Your task to perform on an android device: Open calendar and show me the third week of next month Image 0: 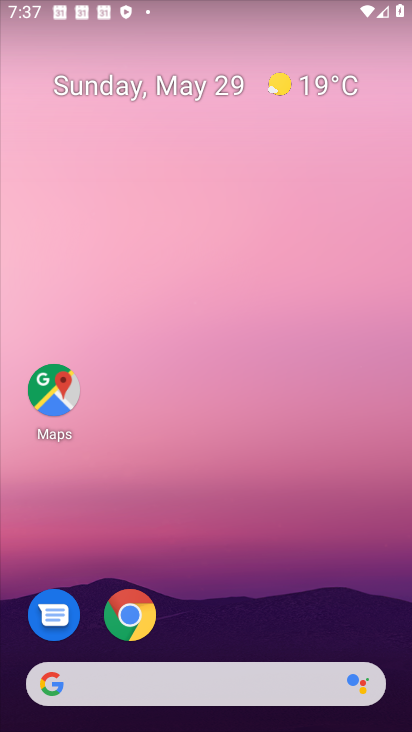
Step 0: drag from (139, 719) to (144, 44)
Your task to perform on an android device: Open calendar and show me the third week of next month Image 1: 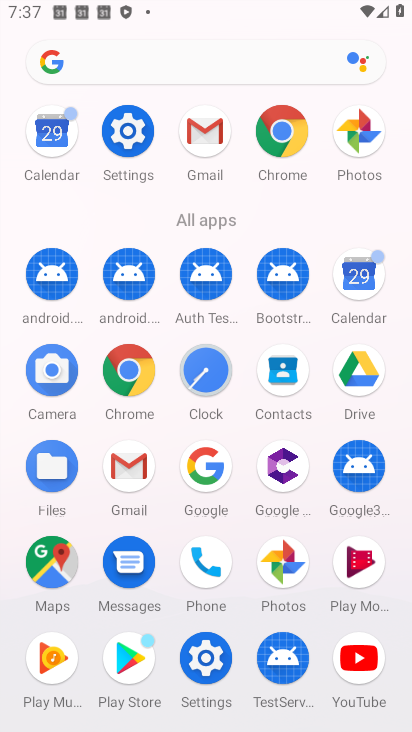
Step 1: click (47, 138)
Your task to perform on an android device: Open calendar and show me the third week of next month Image 2: 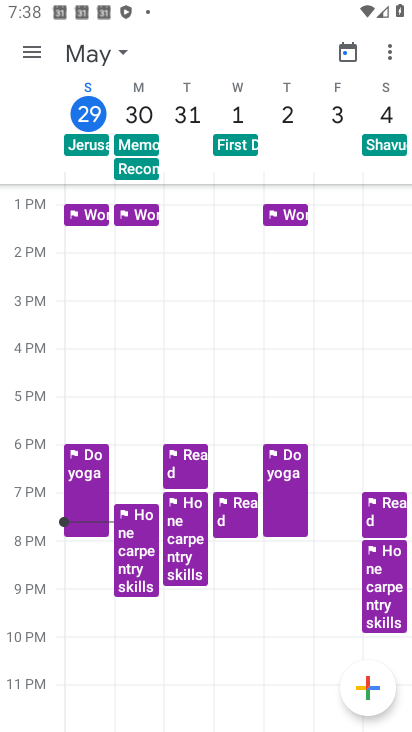
Step 2: click (125, 54)
Your task to perform on an android device: Open calendar and show me the third week of next month Image 3: 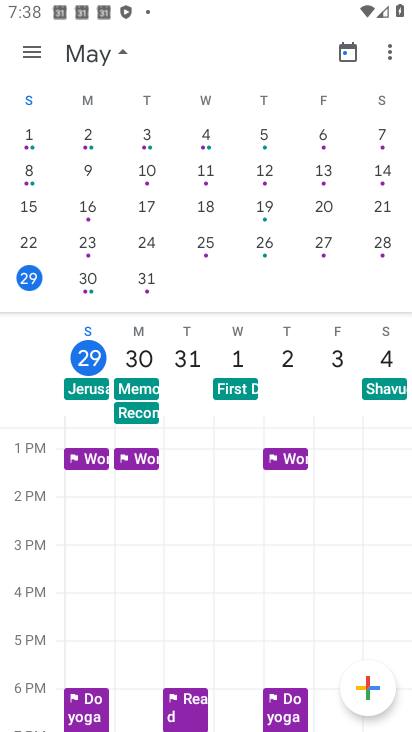
Step 3: drag from (385, 278) to (0, 207)
Your task to perform on an android device: Open calendar and show me the third week of next month Image 4: 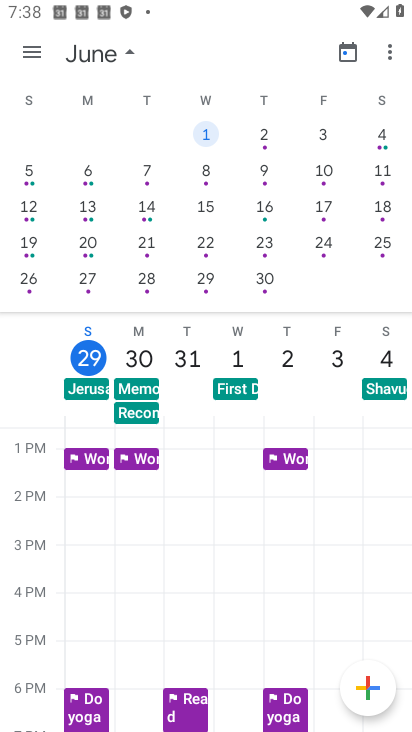
Step 4: click (126, 49)
Your task to perform on an android device: Open calendar and show me the third week of next month Image 5: 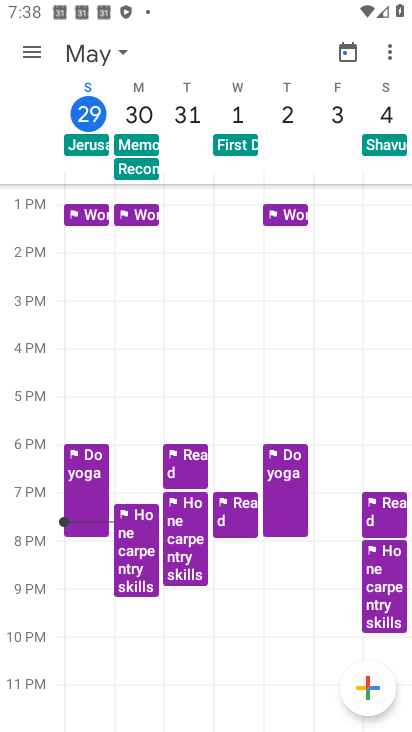
Step 5: drag from (403, 172) to (28, 117)
Your task to perform on an android device: Open calendar and show me the third week of next month Image 6: 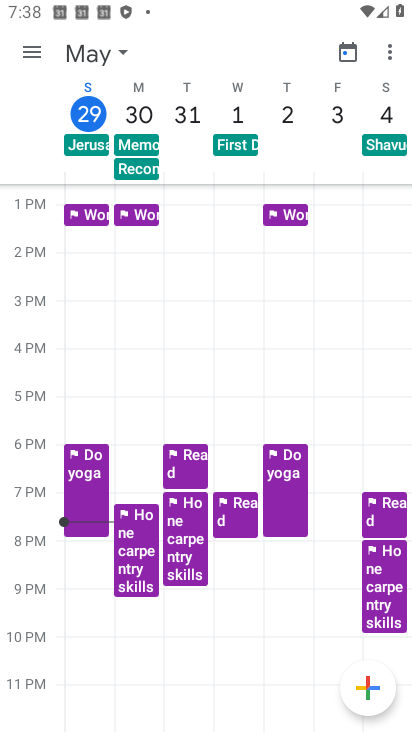
Step 6: drag from (397, 111) to (28, 63)
Your task to perform on an android device: Open calendar and show me the third week of next month Image 7: 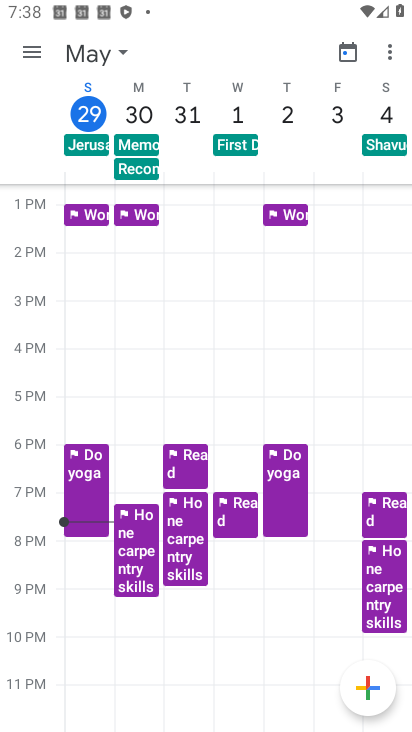
Step 7: drag from (398, 113) to (61, 90)
Your task to perform on an android device: Open calendar and show me the third week of next month Image 8: 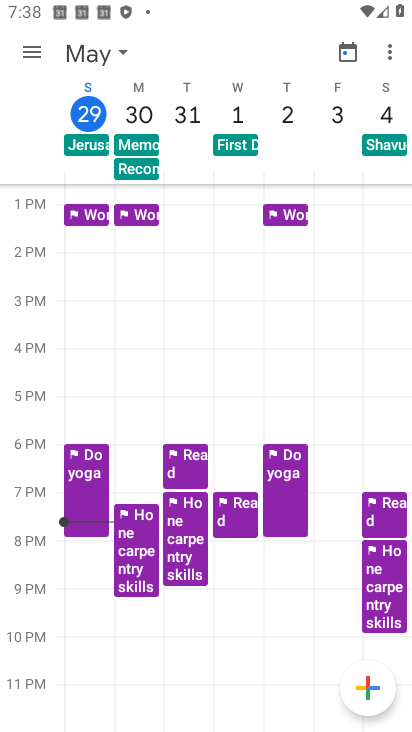
Step 8: drag from (396, 164) to (47, 132)
Your task to perform on an android device: Open calendar and show me the third week of next month Image 9: 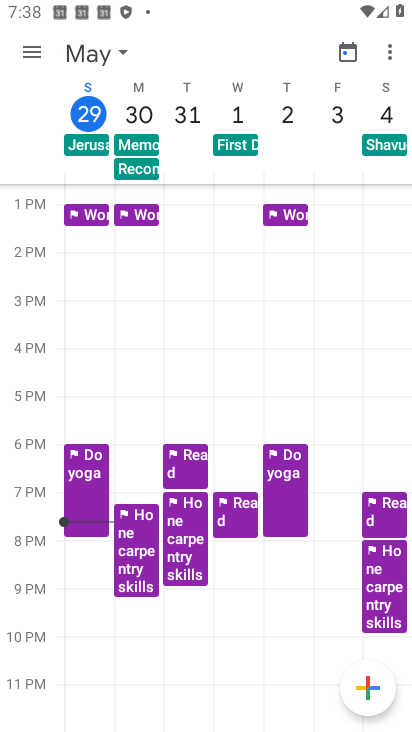
Step 9: drag from (402, 108) to (58, 99)
Your task to perform on an android device: Open calendar and show me the third week of next month Image 10: 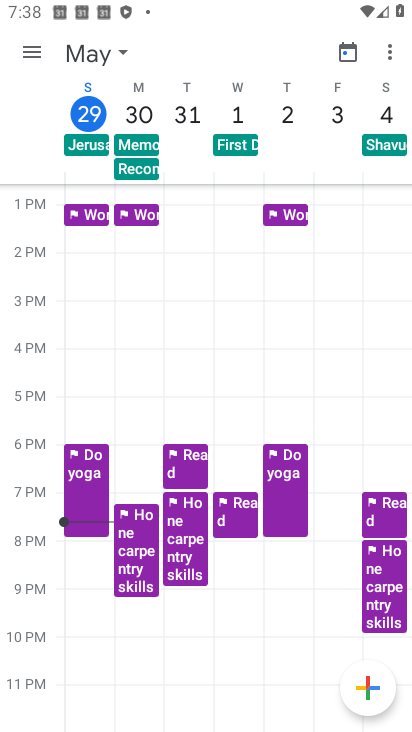
Step 10: drag from (399, 105) to (2, 95)
Your task to perform on an android device: Open calendar and show me the third week of next month Image 11: 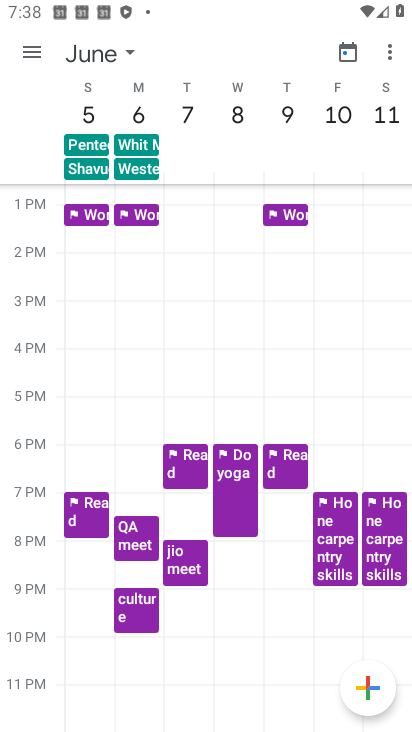
Step 11: click (37, 38)
Your task to perform on an android device: Open calendar and show me the third week of next month Image 12: 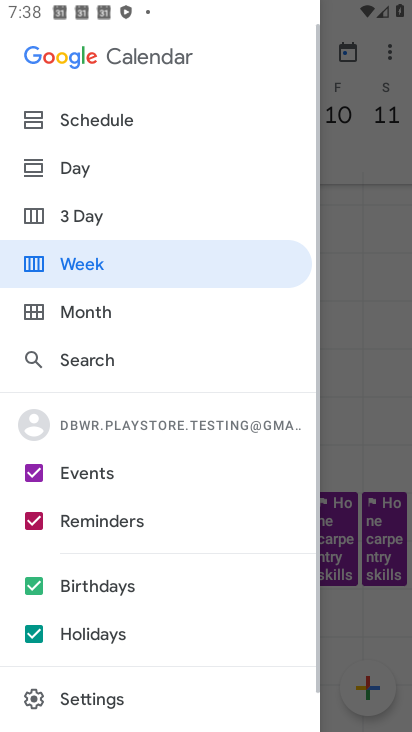
Step 12: click (79, 280)
Your task to perform on an android device: Open calendar and show me the third week of next month Image 13: 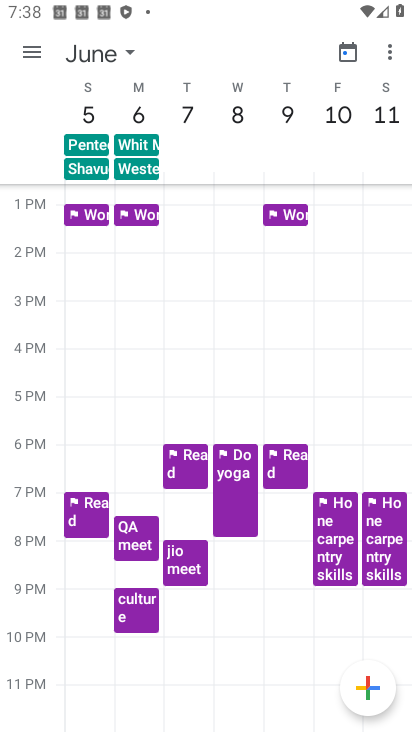
Step 13: task complete